Your task to perform on an android device: Open Yahoo.com Image 0: 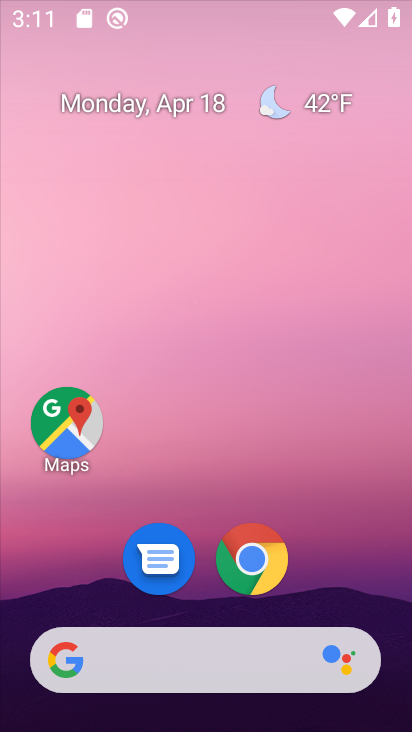
Step 0: drag from (212, 612) to (241, 307)
Your task to perform on an android device: Open Yahoo.com Image 1: 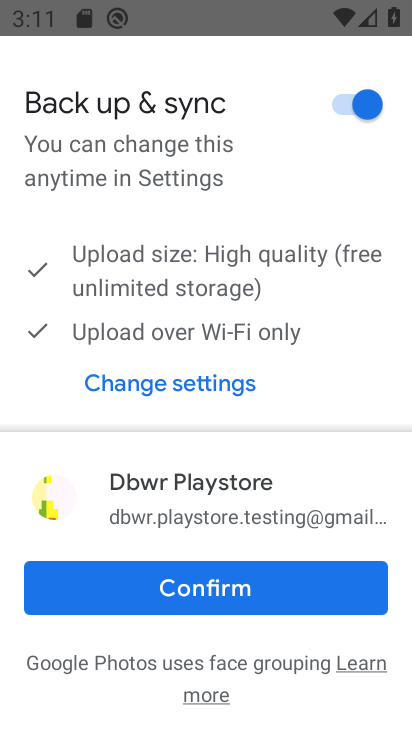
Step 1: click (195, 594)
Your task to perform on an android device: Open Yahoo.com Image 2: 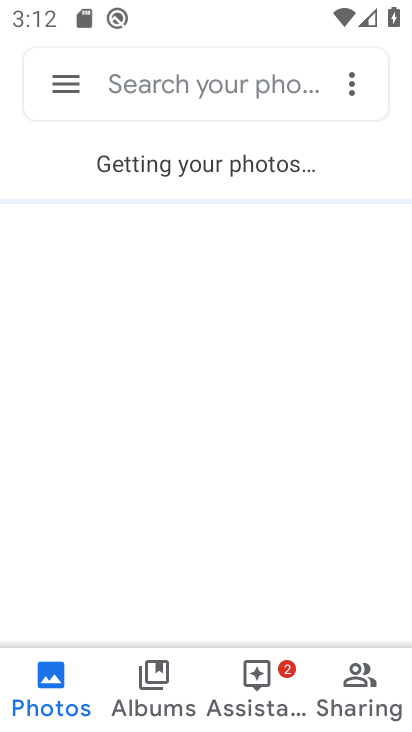
Step 2: press home button
Your task to perform on an android device: Open Yahoo.com Image 3: 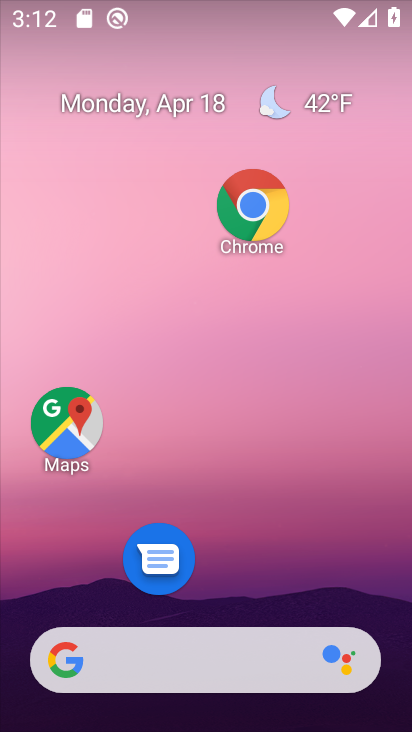
Step 3: click (240, 218)
Your task to perform on an android device: Open Yahoo.com Image 4: 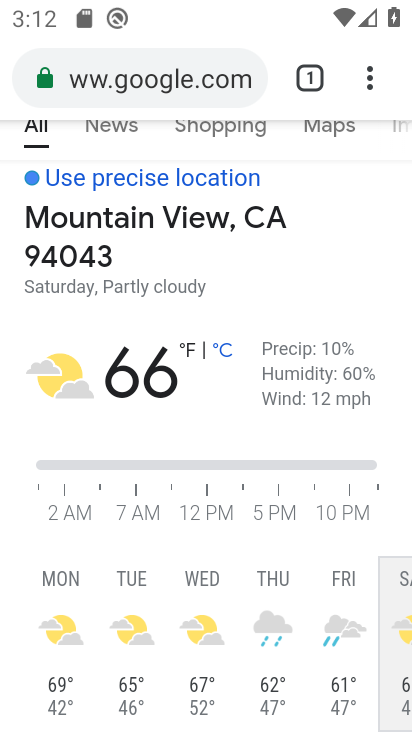
Step 4: click (140, 79)
Your task to perform on an android device: Open Yahoo.com Image 5: 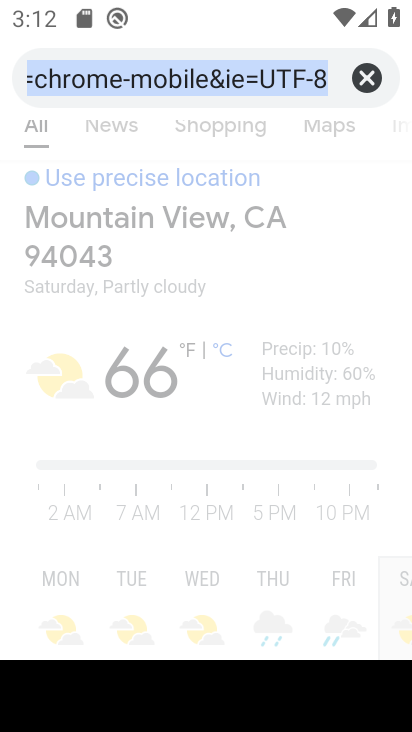
Step 5: type "yahoo.com"
Your task to perform on an android device: Open Yahoo.com Image 6: 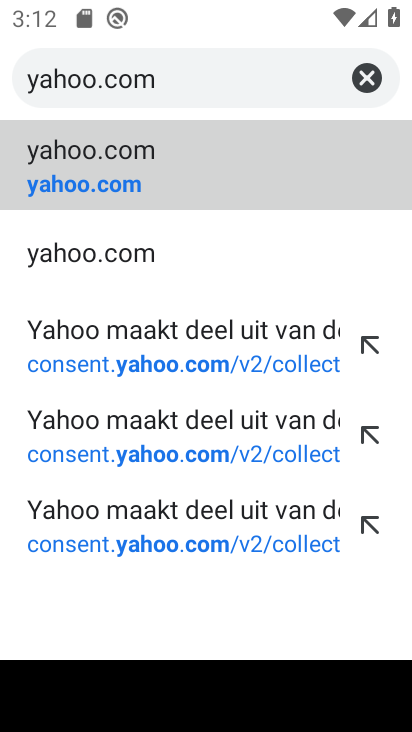
Step 6: click (140, 149)
Your task to perform on an android device: Open Yahoo.com Image 7: 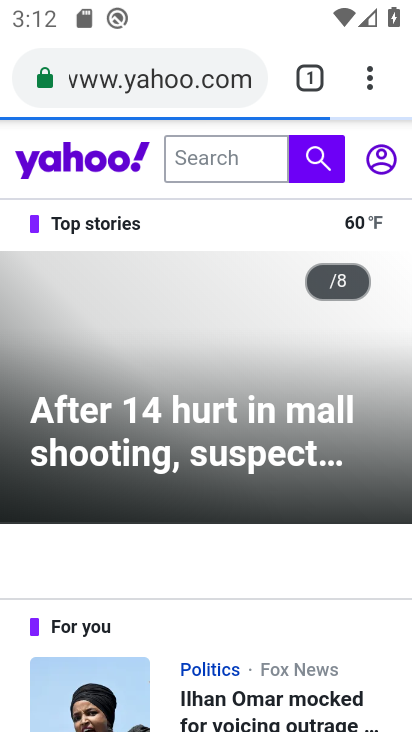
Step 7: task complete